Your task to perform on an android device: open chrome and create a bookmark for the current page Image 0: 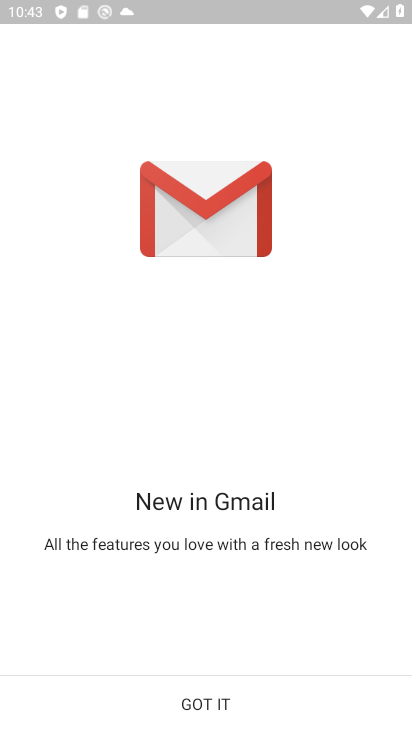
Step 0: press home button
Your task to perform on an android device: open chrome and create a bookmark for the current page Image 1: 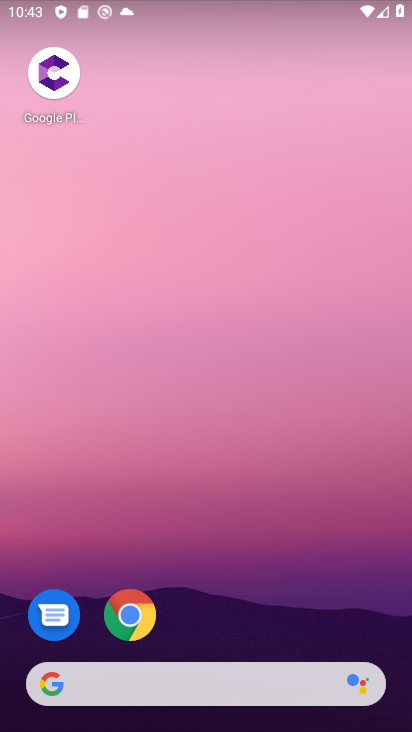
Step 1: click (135, 618)
Your task to perform on an android device: open chrome and create a bookmark for the current page Image 2: 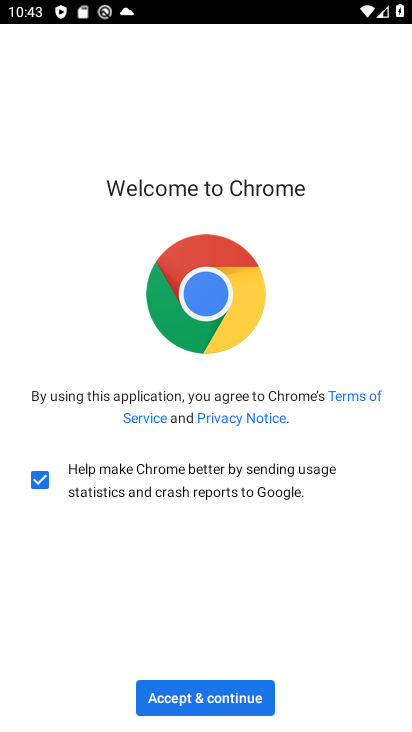
Step 2: click (205, 705)
Your task to perform on an android device: open chrome and create a bookmark for the current page Image 3: 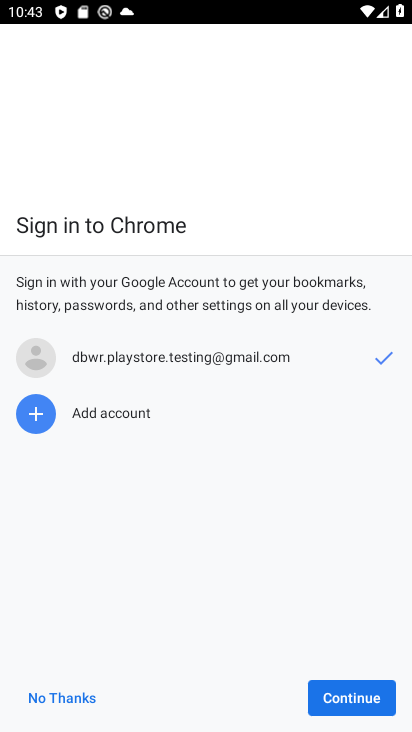
Step 3: click (349, 683)
Your task to perform on an android device: open chrome and create a bookmark for the current page Image 4: 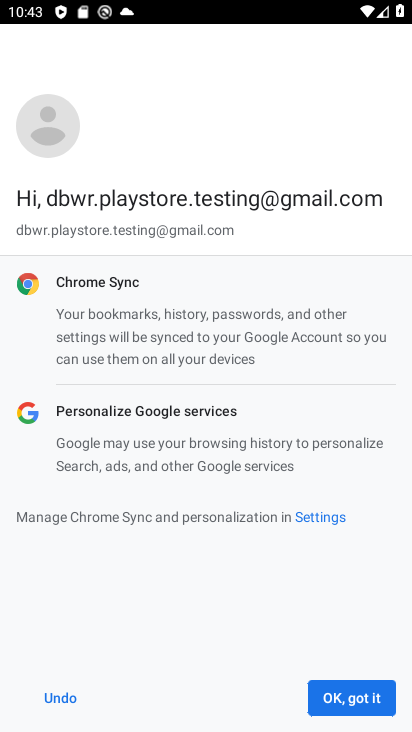
Step 4: click (334, 686)
Your task to perform on an android device: open chrome and create a bookmark for the current page Image 5: 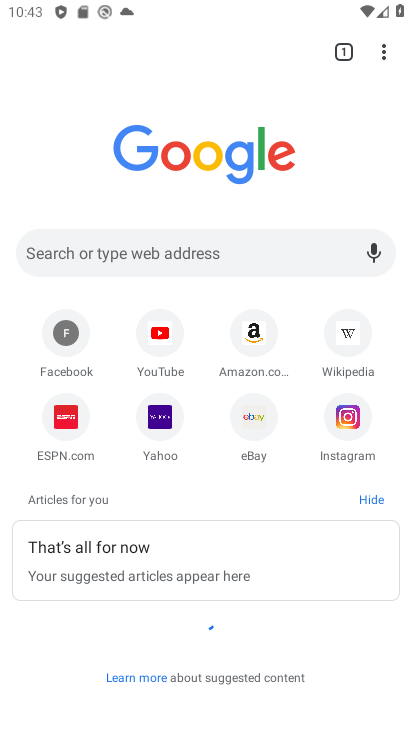
Step 5: task complete